Your task to perform on an android device: change the clock display to analog Image 0: 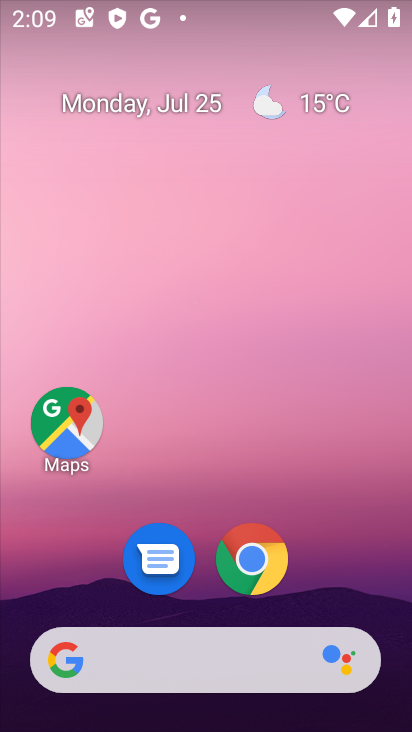
Step 0: drag from (83, 552) to (173, 142)
Your task to perform on an android device: change the clock display to analog Image 1: 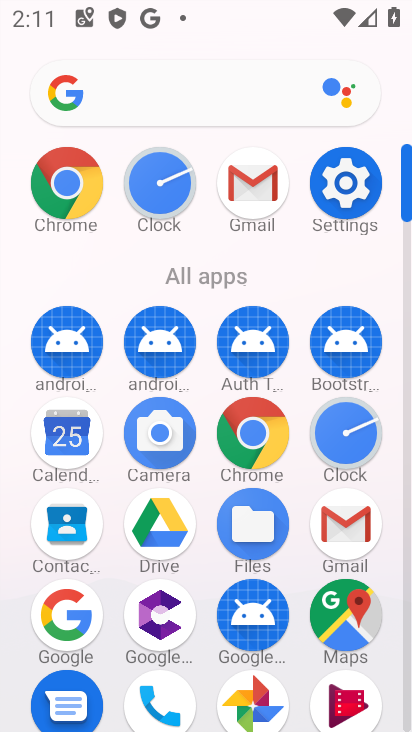
Step 1: click (333, 428)
Your task to perform on an android device: change the clock display to analog Image 2: 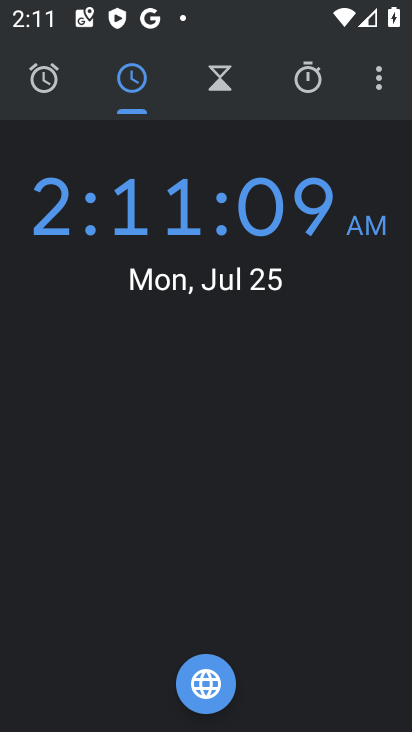
Step 2: click (374, 74)
Your task to perform on an android device: change the clock display to analog Image 3: 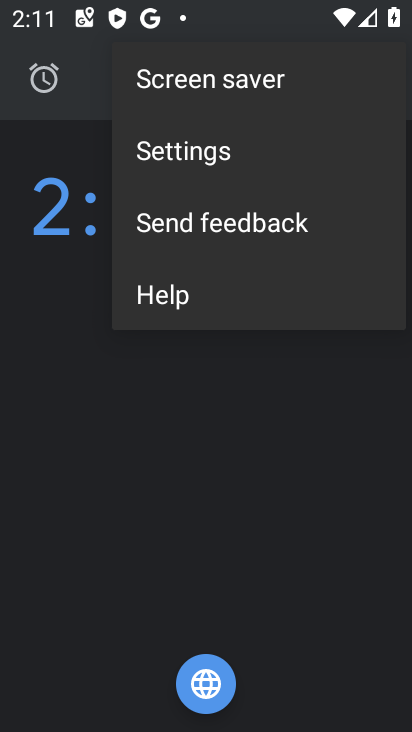
Step 3: click (206, 166)
Your task to perform on an android device: change the clock display to analog Image 4: 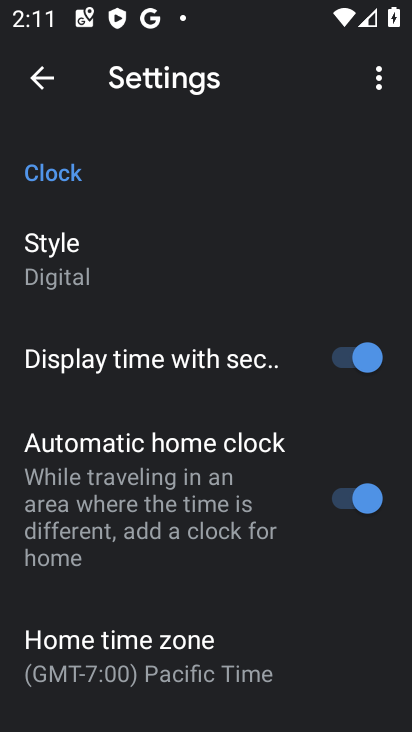
Step 4: click (114, 264)
Your task to perform on an android device: change the clock display to analog Image 5: 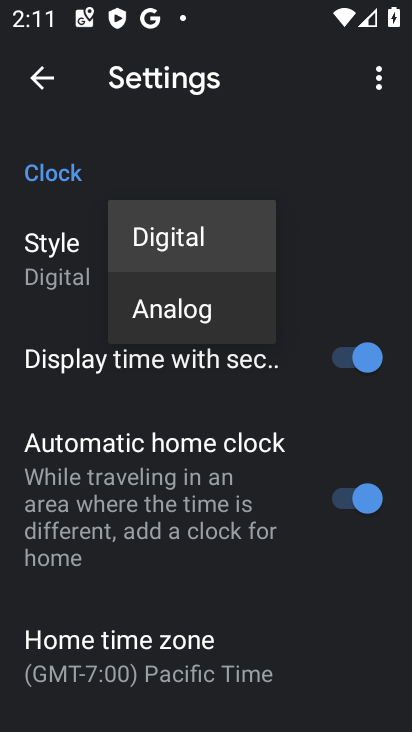
Step 5: click (179, 334)
Your task to perform on an android device: change the clock display to analog Image 6: 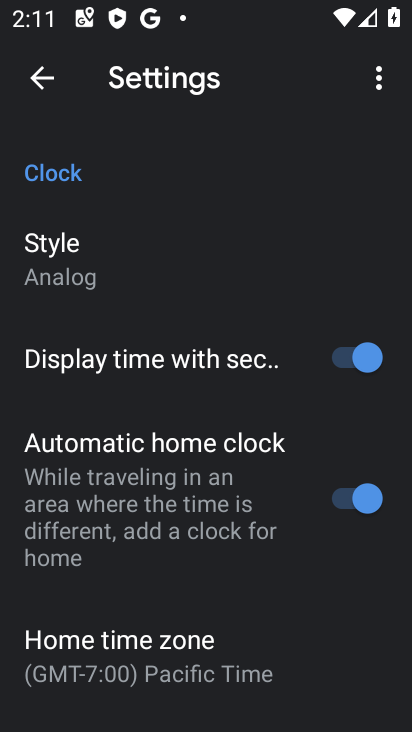
Step 6: task complete